Your task to perform on an android device: Search for asus rog on walmart, select the first entry, add it to the cart, then select checkout. Image 0: 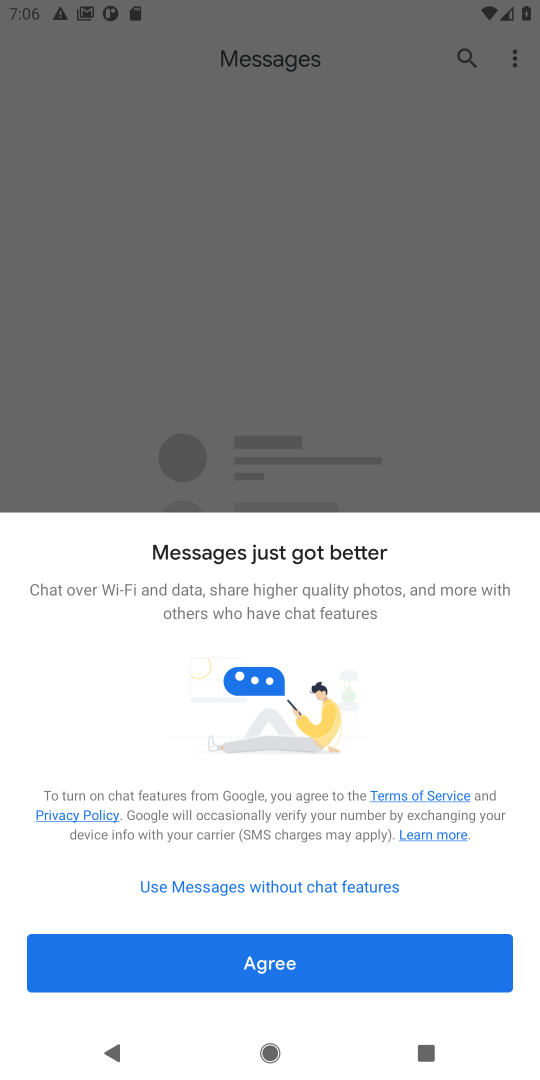
Step 0: press home button
Your task to perform on an android device: Search for asus rog on walmart, select the first entry, add it to the cart, then select checkout. Image 1: 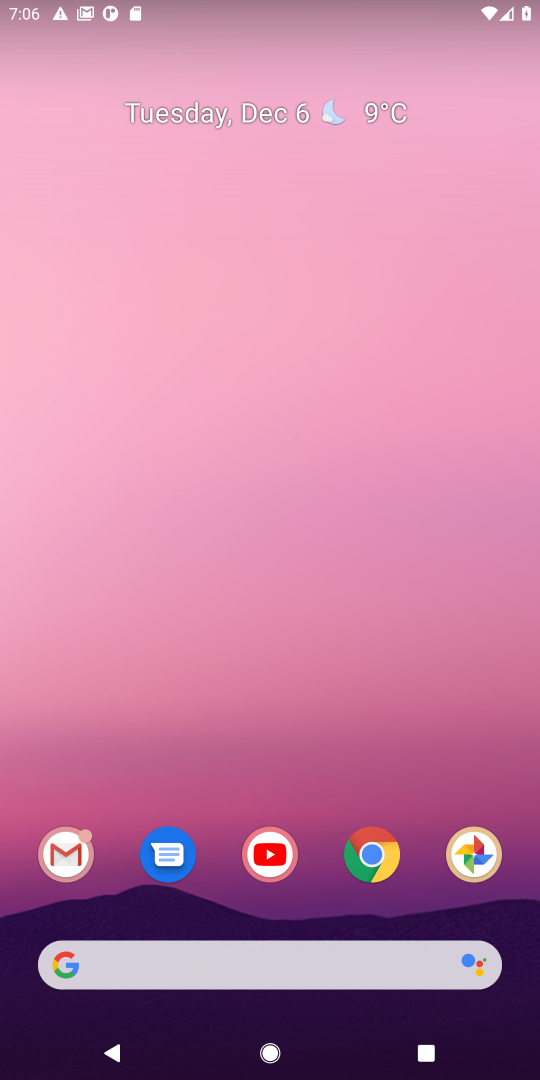
Step 1: click (363, 861)
Your task to perform on an android device: Search for asus rog on walmart, select the first entry, add it to the cart, then select checkout. Image 2: 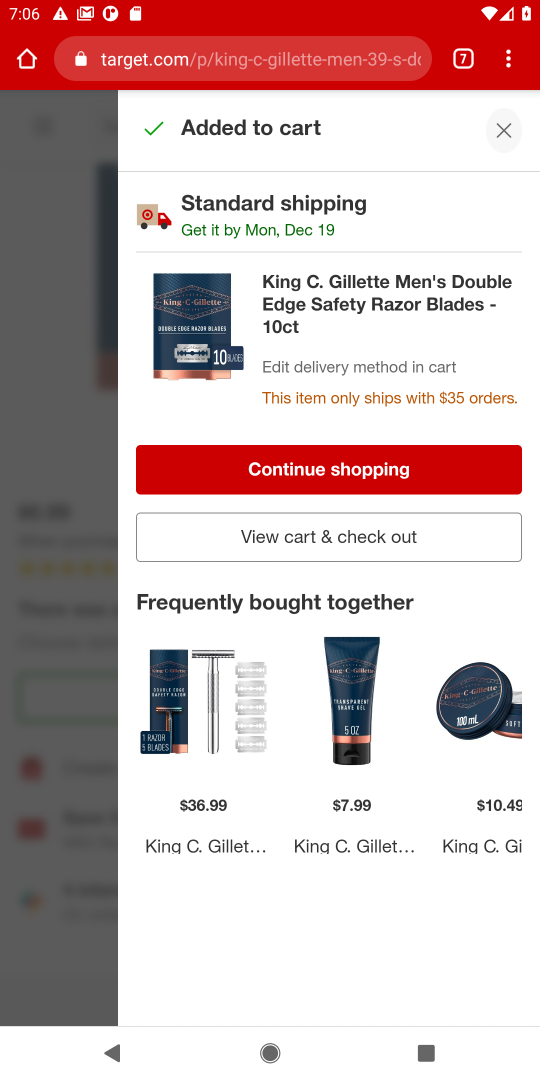
Step 2: click (461, 61)
Your task to perform on an android device: Search for asus rog on walmart, select the first entry, add it to the cart, then select checkout. Image 3: 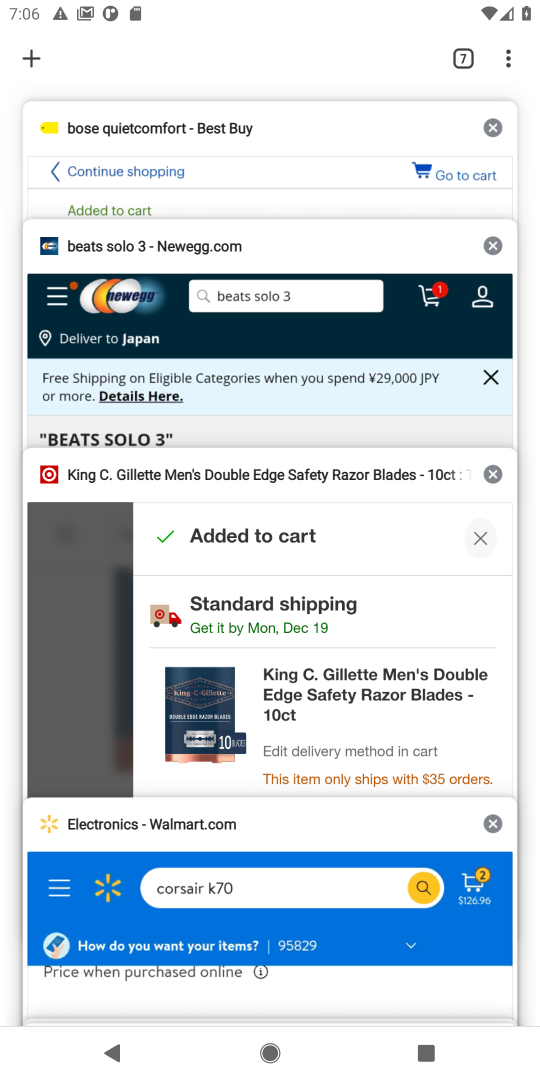
Step 3: click (131, 916)
Your task to perform on an android device: Search for asus rog on walmart, select the first entry, add it to the cart, then select checkout. Image 4: 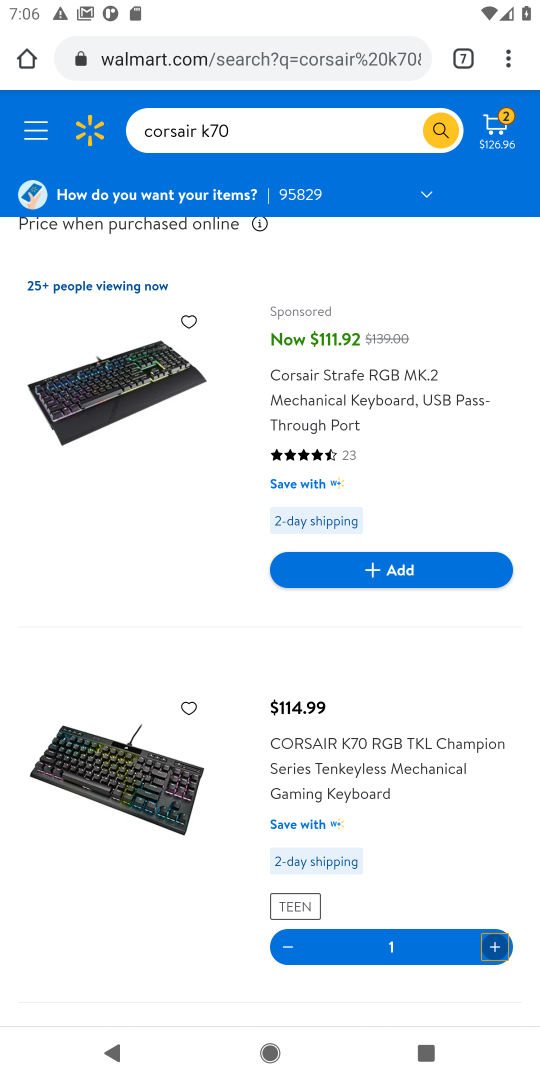
Step 4: click (283, 132)
Your task to perform on an android device: Search for asus rog on walmart, select the first entry, add it to the cart, then select checkout. Image 5: 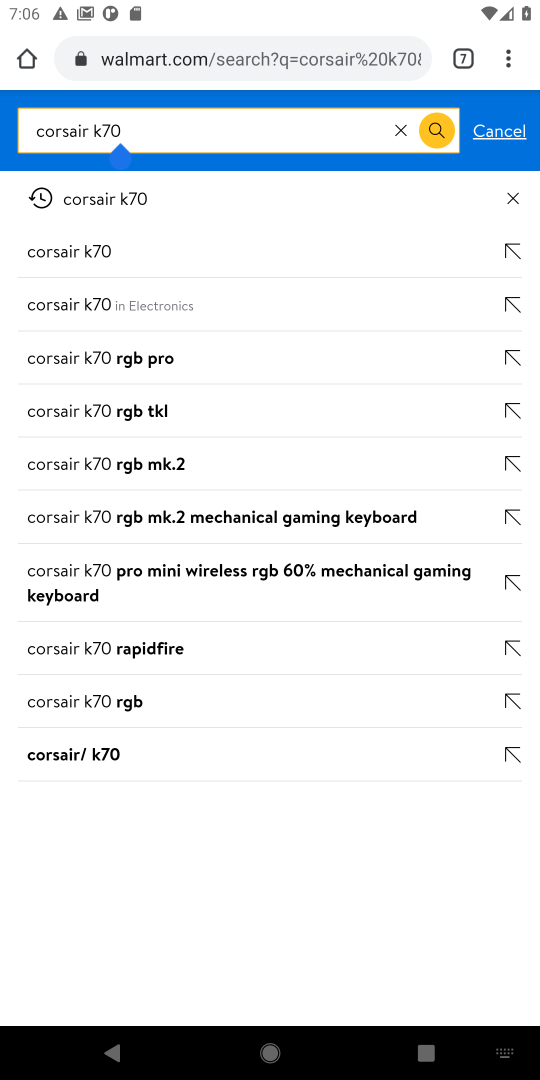
Step 5: click (402, 134)
Your task to perform on an android device: Search for asus rog on walmart, select the first entry, add it to the cart, then select checkout. Image 6: 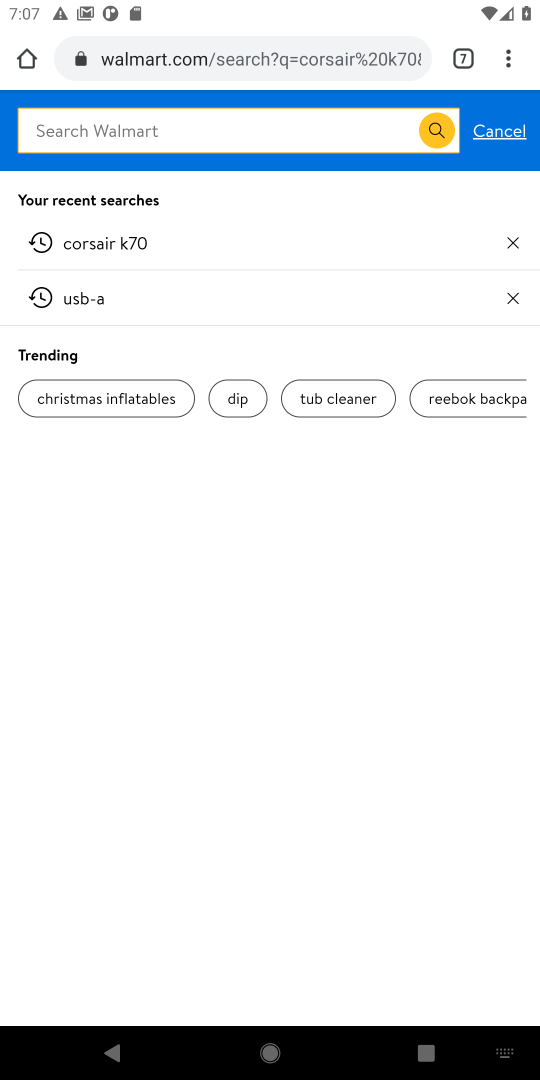
Step 6: type "asus rog"
Your task to perform on an android device: Search for asus rog on walmart, select the first entry, add it to the cart, then select checkout. Image 7: 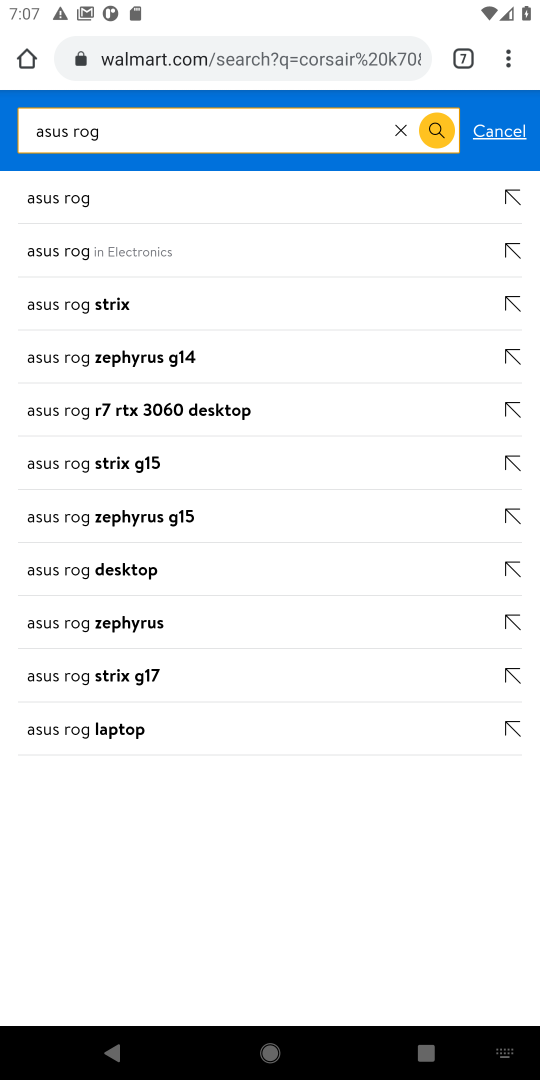
Step 7: click (49, 252)
Your task to perform on an android device: Search for asus rog on walmart, select the first entry, add it to the cart, then select checkout. Image 8: 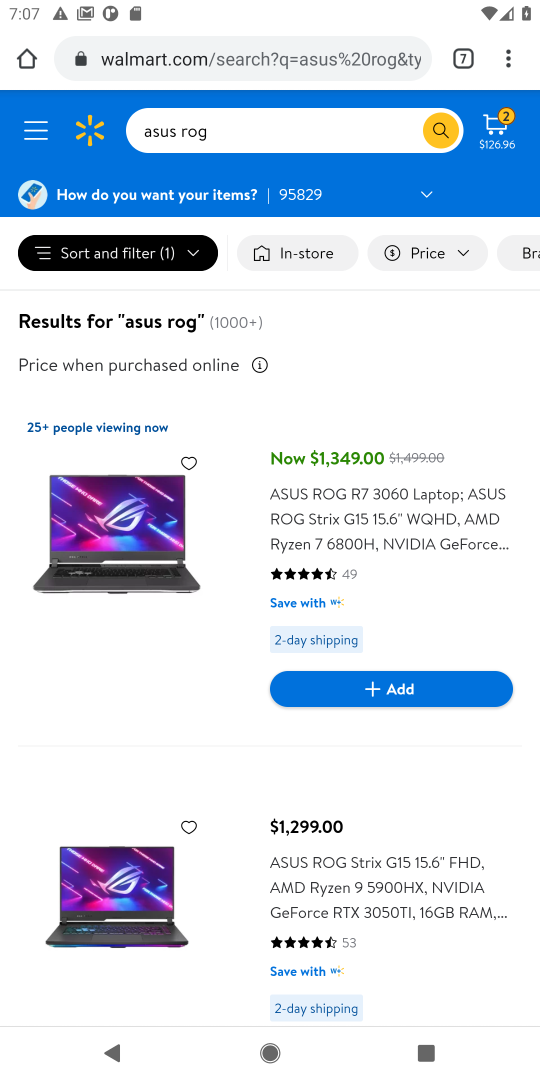
Step 8: click (394, 691)
Your task to perform on an android device: Search for asus rog on walmart, select the first entry, add it to the cart, then select checkout. Image 9: 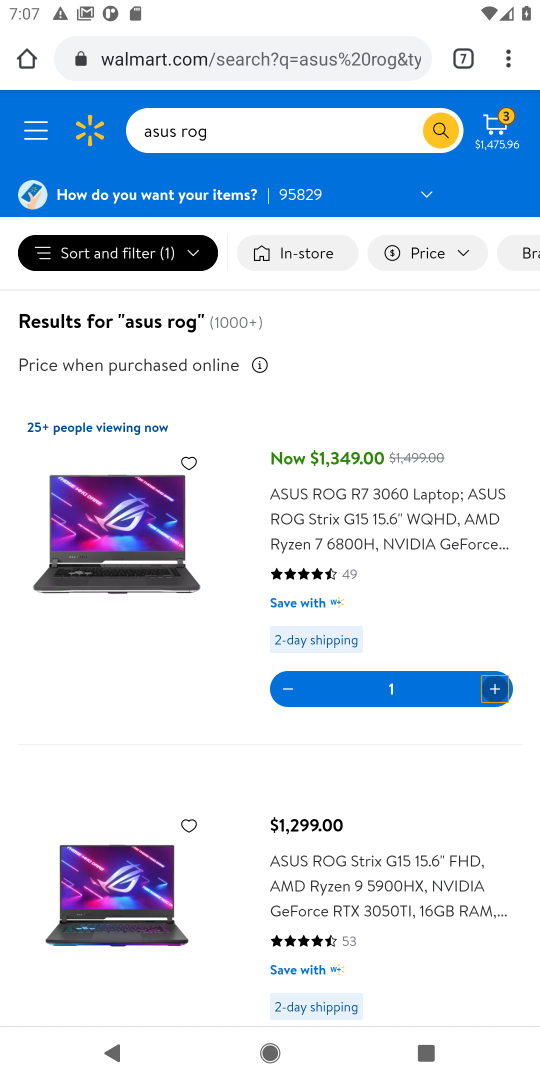
Step 9: click (505, 138)
Your task to perform on an android device: Search for asus rog on walmart, select the first entry, add it to the cart, then select checkout. Image 10: 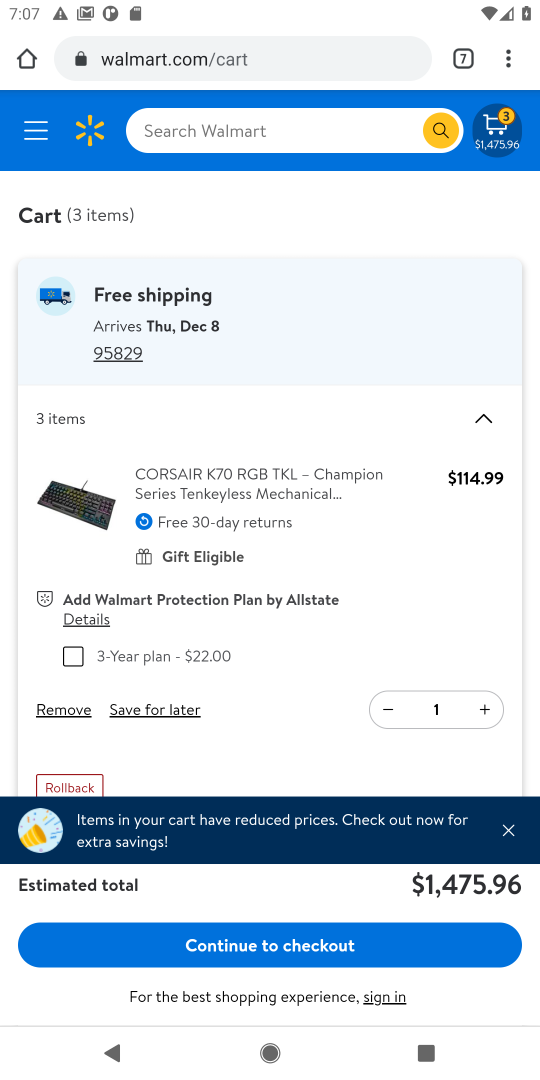
Step 10: click (339, 948)
Your task to perform on an android device: Search for asus rog on walmart, select the first entry, add it to the cart, then select checkout. Image 11: 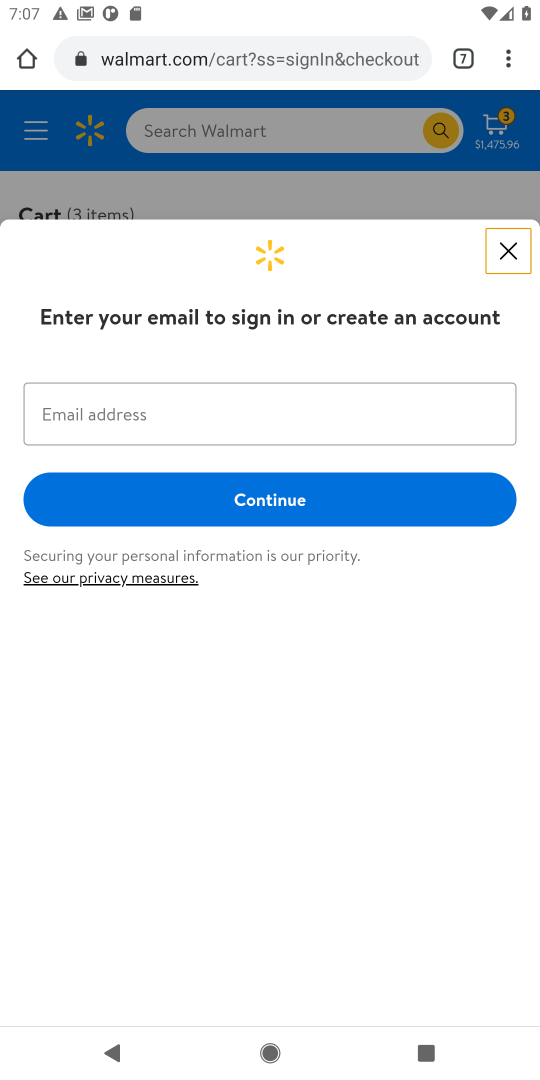
Step 11: task complete